Your task to perform on an android device: Clear the shopping cart on bestbuy. Add asus rog to the cart on bestbuy, then select checkout. Image 0: 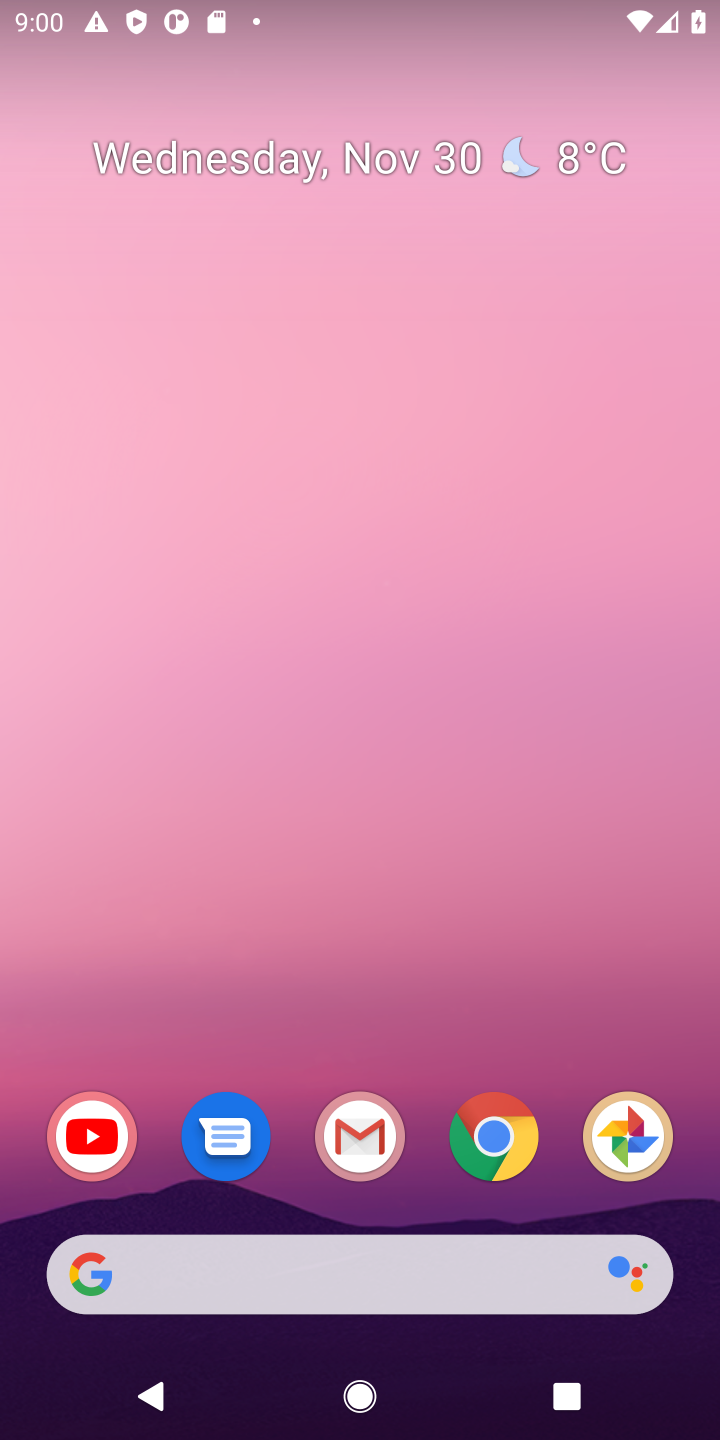
Step 0: click (486, 1131)
Your task to perform on an android device: Clear the shopping cart on bestbuy. Add asus rog to the cart on bestbuy, then select checkout. Image 1: 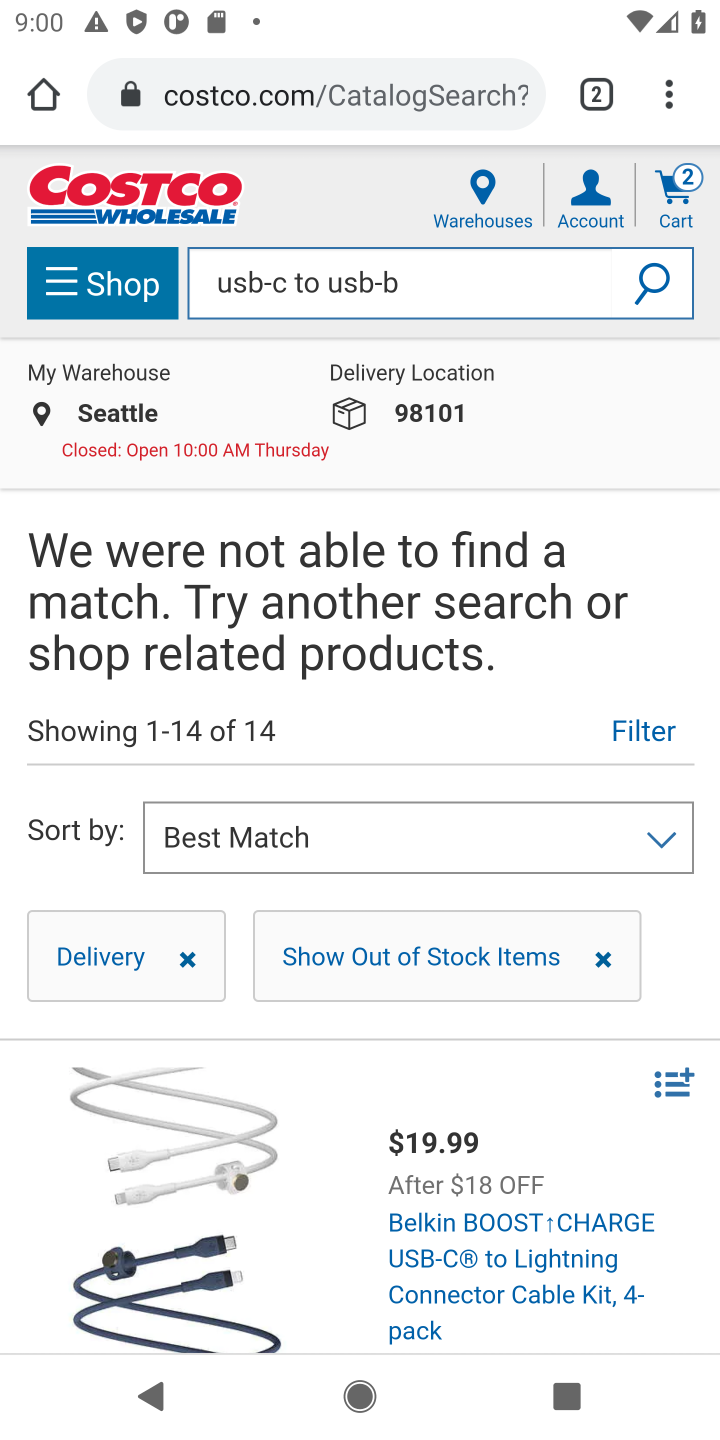
Step 1: click (328, 98)
Your task to perform on an android device: Clear the shopping cart on bestbuy. Add asus rog to the cart on bestbuy, then select checkout. Image 2: 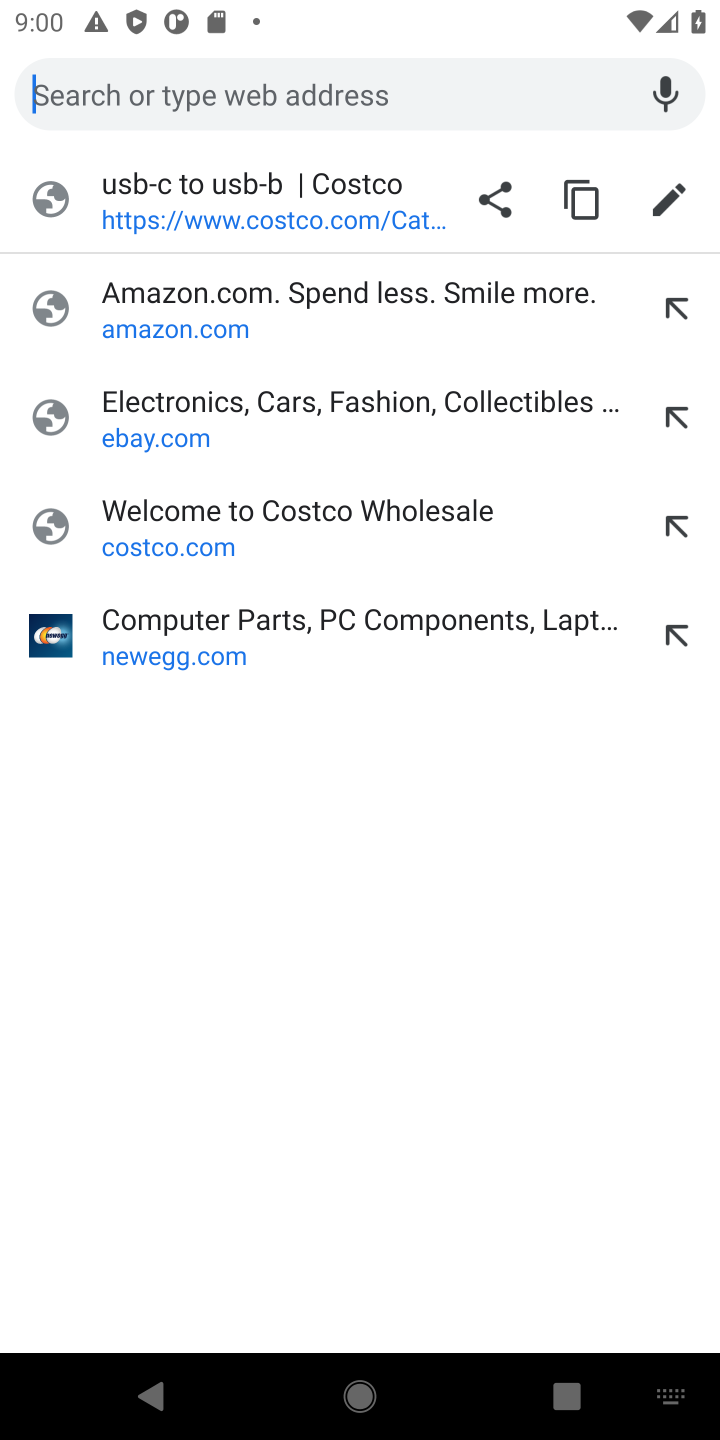
Step 2: type "bestbuy.com"
Your task to perform on an android device: Clear the shopping cart on bestbuy. Add asus rog to the cart on bestbuy, then select checkout. Image 3: 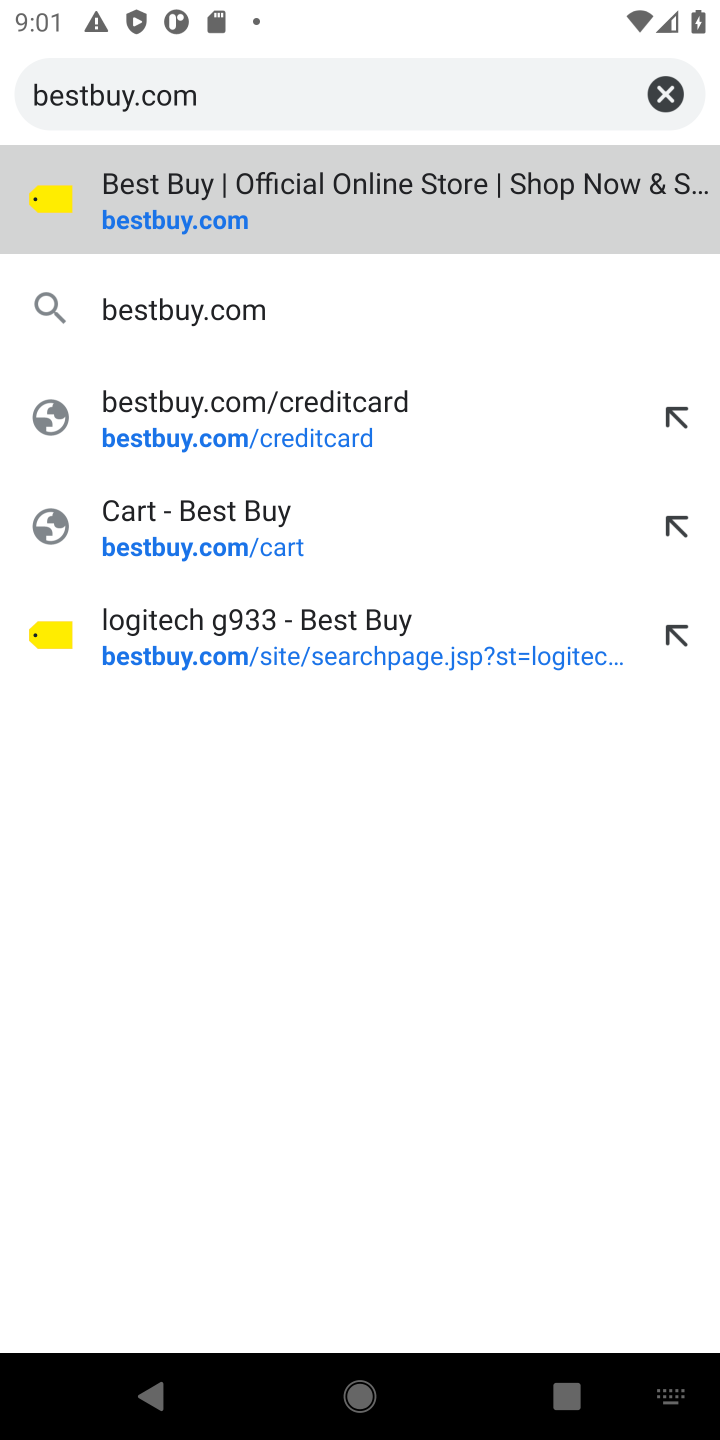
Step 3: click (119, 194)
Your task to perform on an android device: Clear the shopping cart on bestbuy. Add asus rog to the cart on bestbuy, then select checkout. Image 4: 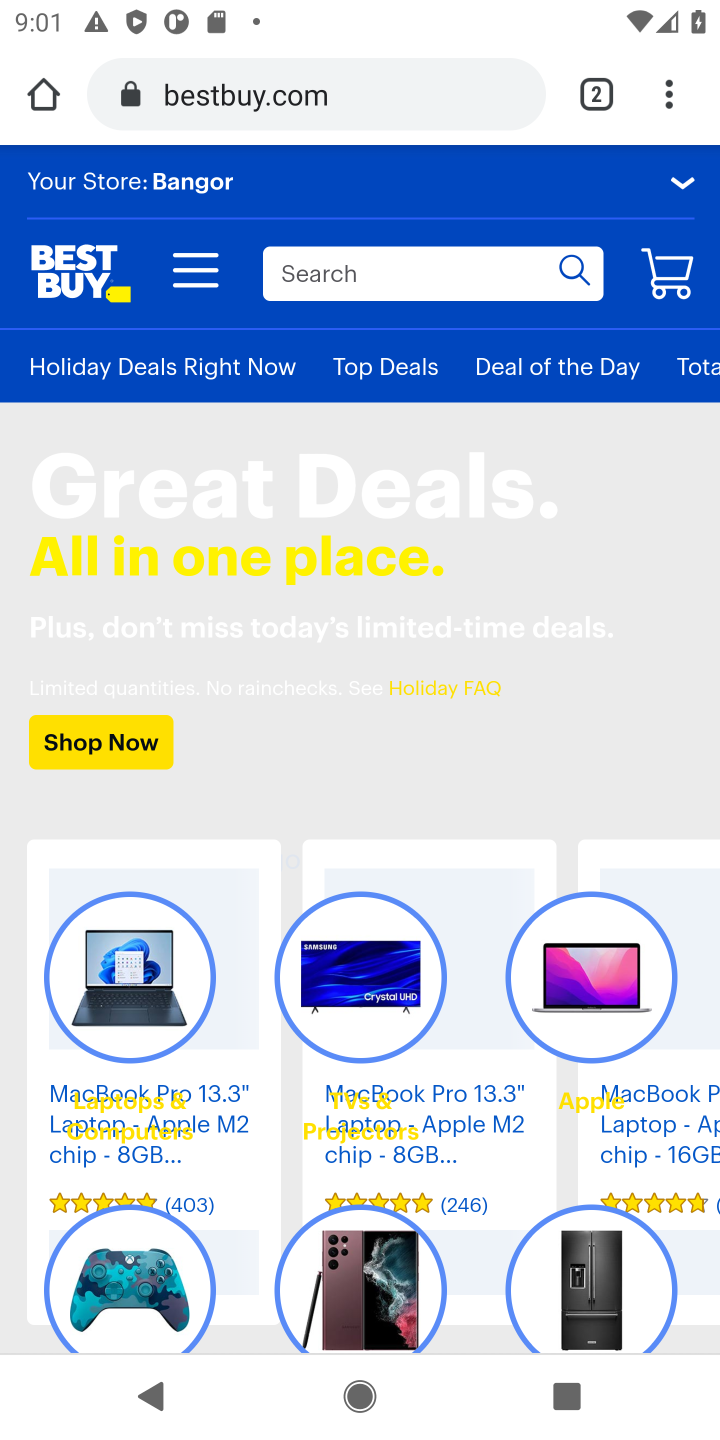
Step 4: click (665, 277)
Your task to perform on an android device: Clear the shopping cart on bestbuy. Add asus rog to the cart on bestbuy, then select checkout. Image 5: 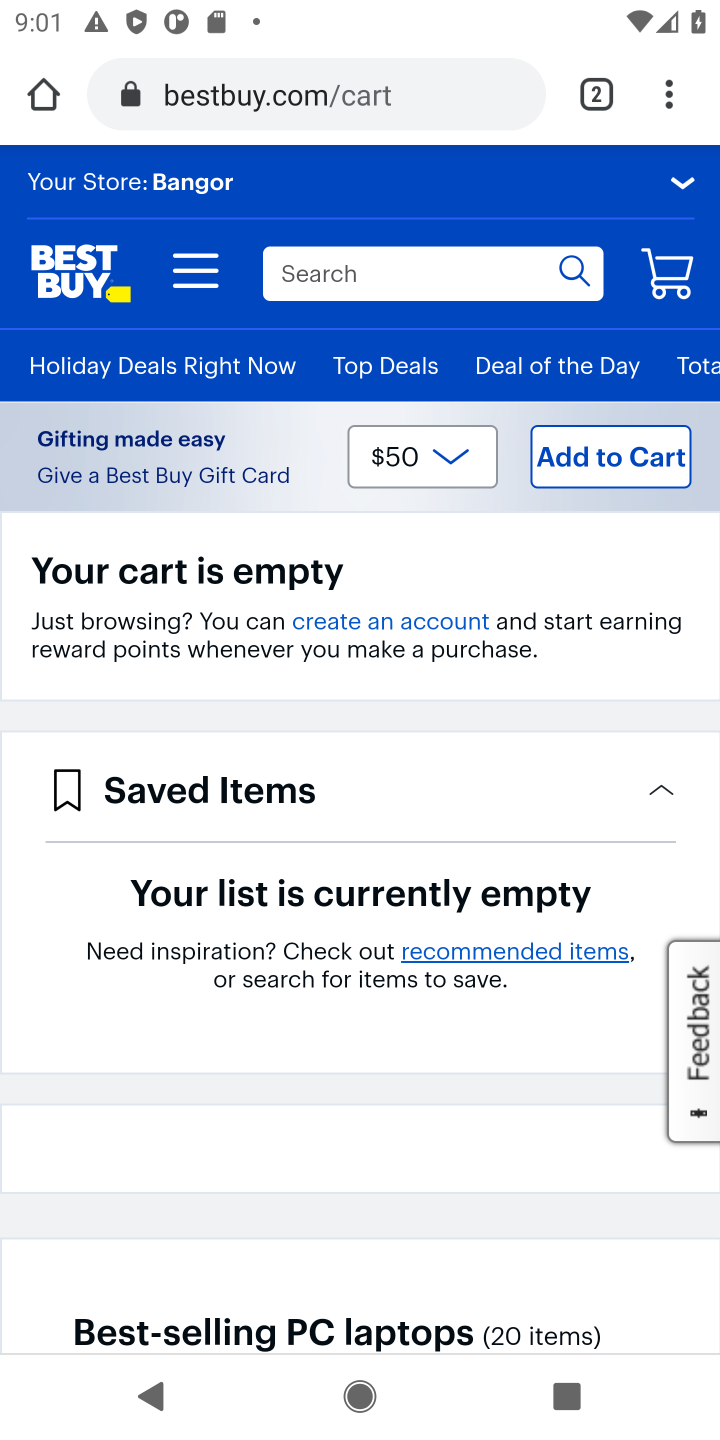
Step 5: click (344, 286)
Your task to perform on an android device: Clear the shopping cart on bestbuy. Add asus rog to the cart on bestbuy, then select checkout. Image 6: 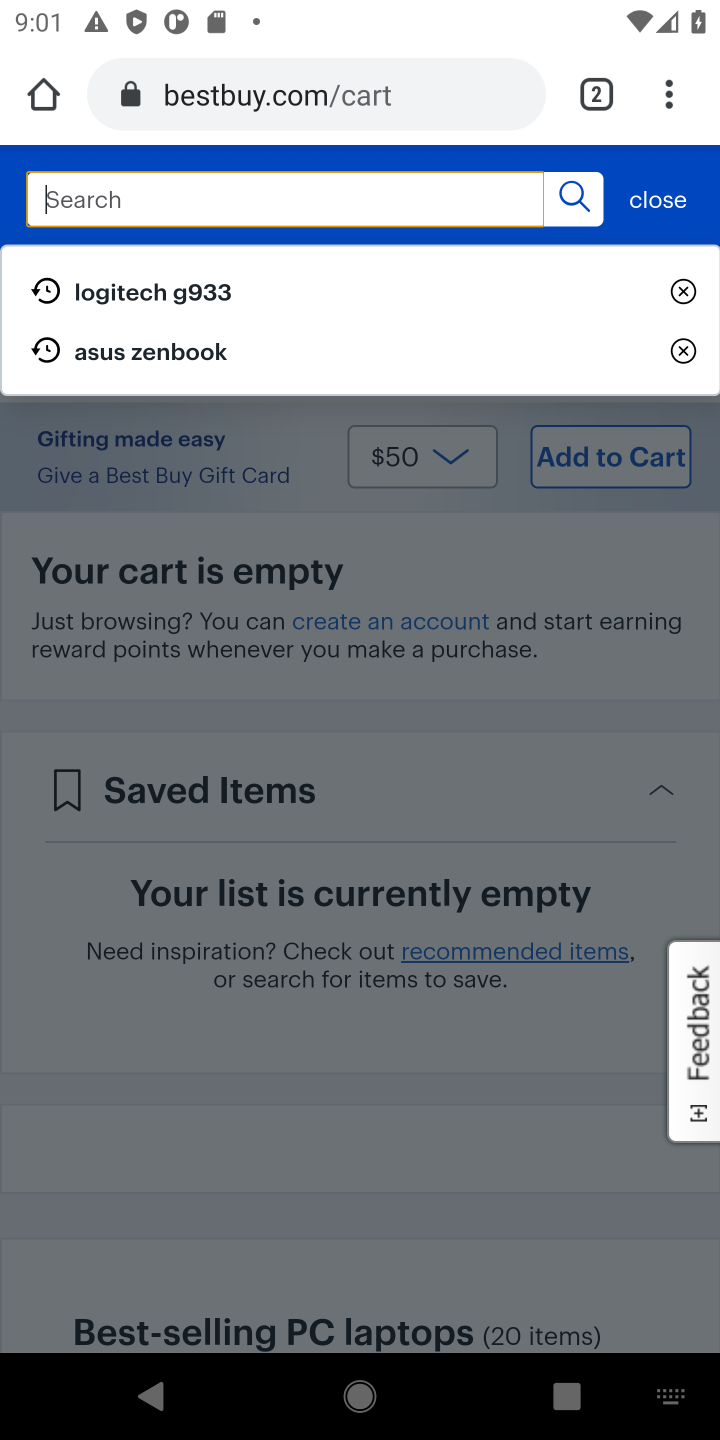
Step 6: type "asus rog "
Your task to perform on an android device: Clear the shopping cart on bestbuy. Add asus rog to the cart on bestbuy, then select checkout. Image 7: 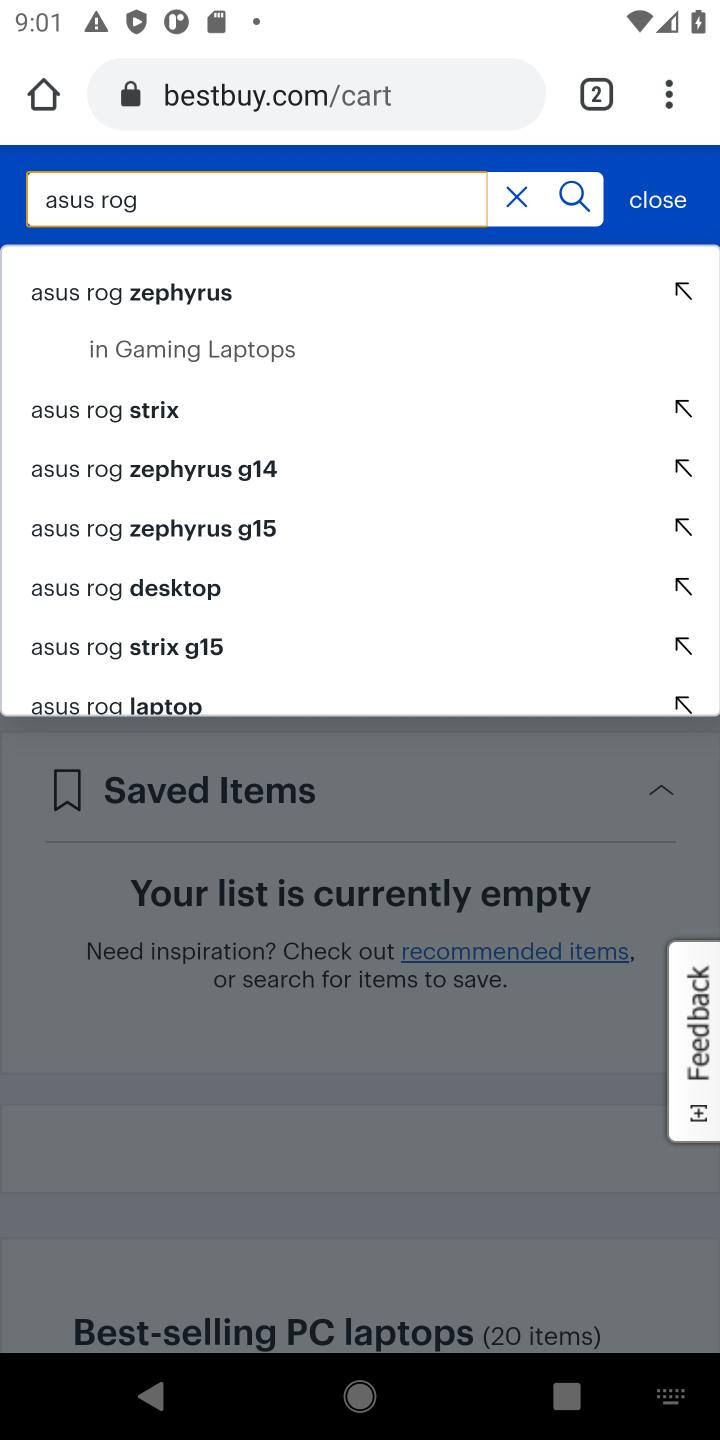
Step 7: click (571, 195)
Your task to perform on an android device: Clear the shopping cart on bestbuy. Add asus rog to the cart on bestbuy, then select checkout. Image 8: 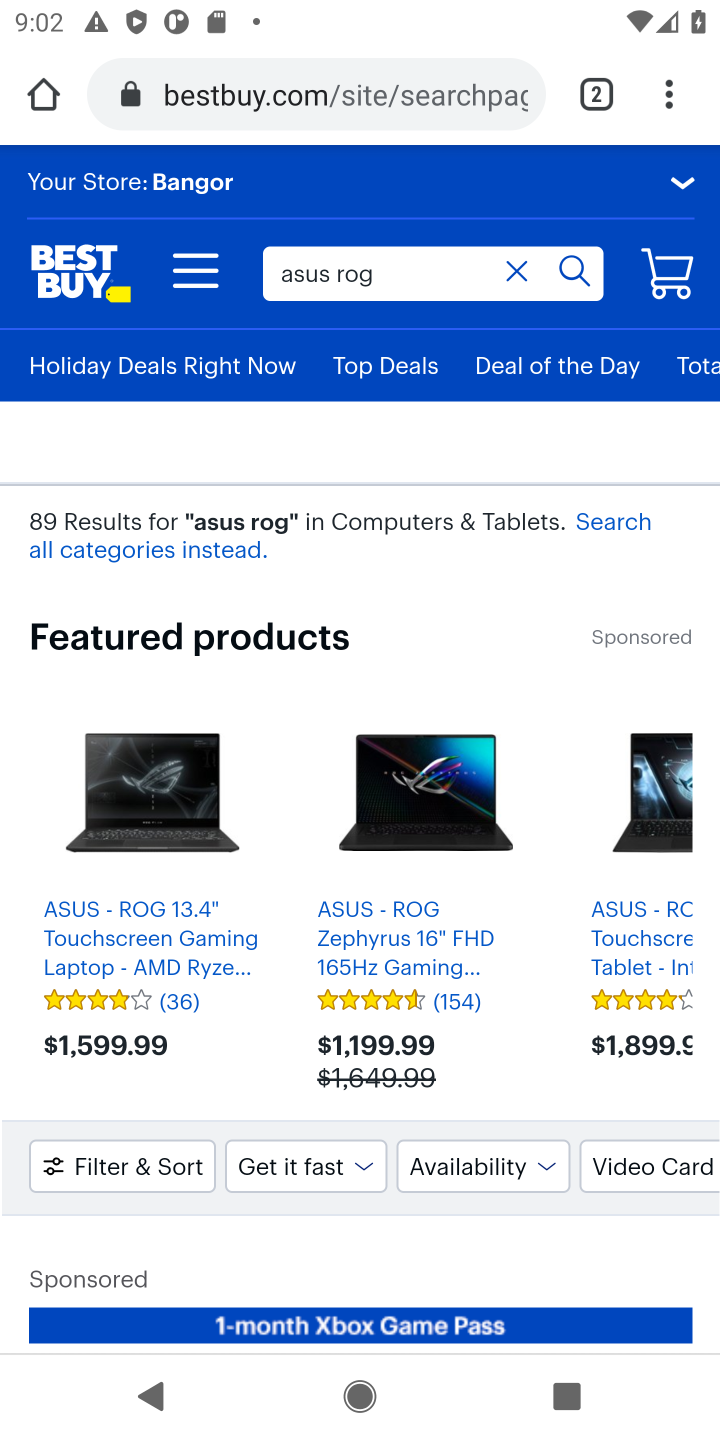
Step 8: drag from (433, 1071) to (466, 559)
Your task to perform on an android device: Clear the shopping cart on bestbuy. Add asus rog to the cart on bestbuy, then select checkout. Image 9: 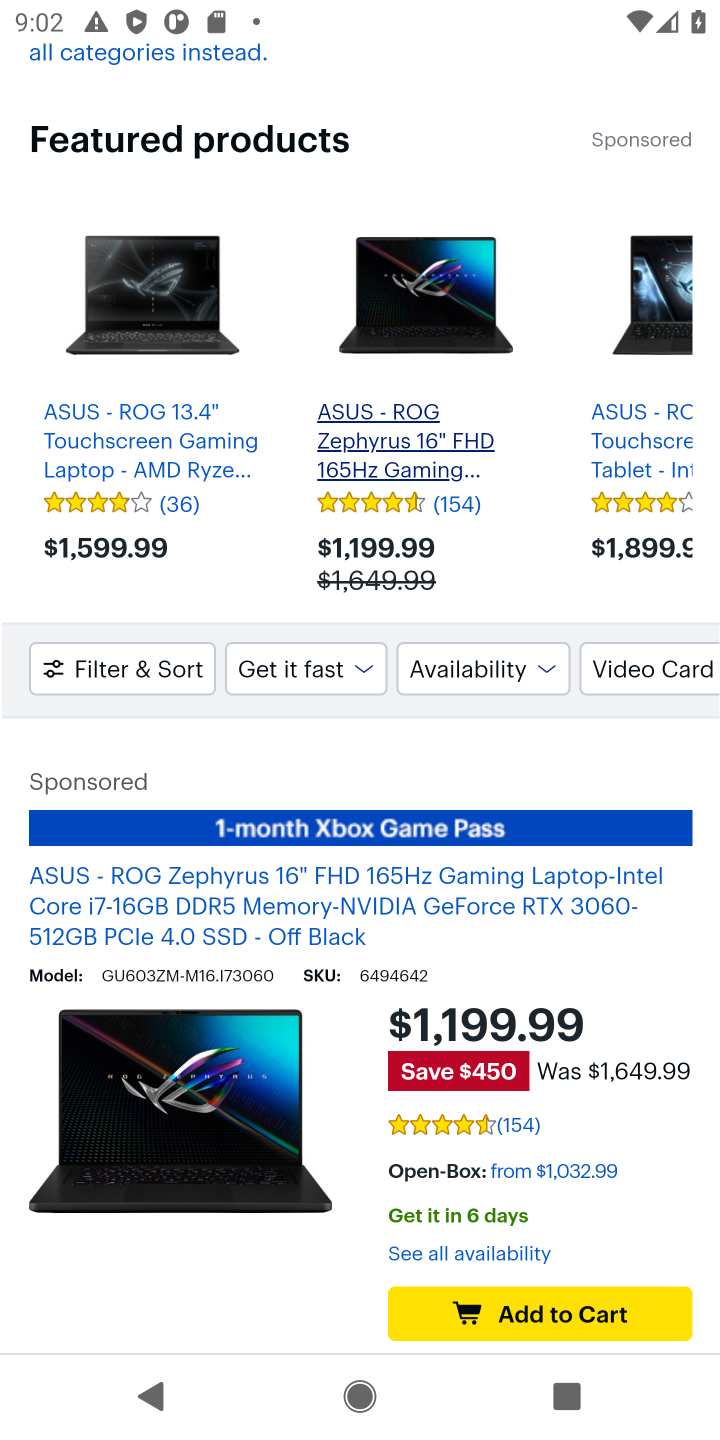
Step 9: drag from (354, 1153) to (352, 772)
Your task to perform on an android device: Clear the shopping cart on bestbuy. Add asus rog to the cart on bestbuy, then select checkout. Image 10: 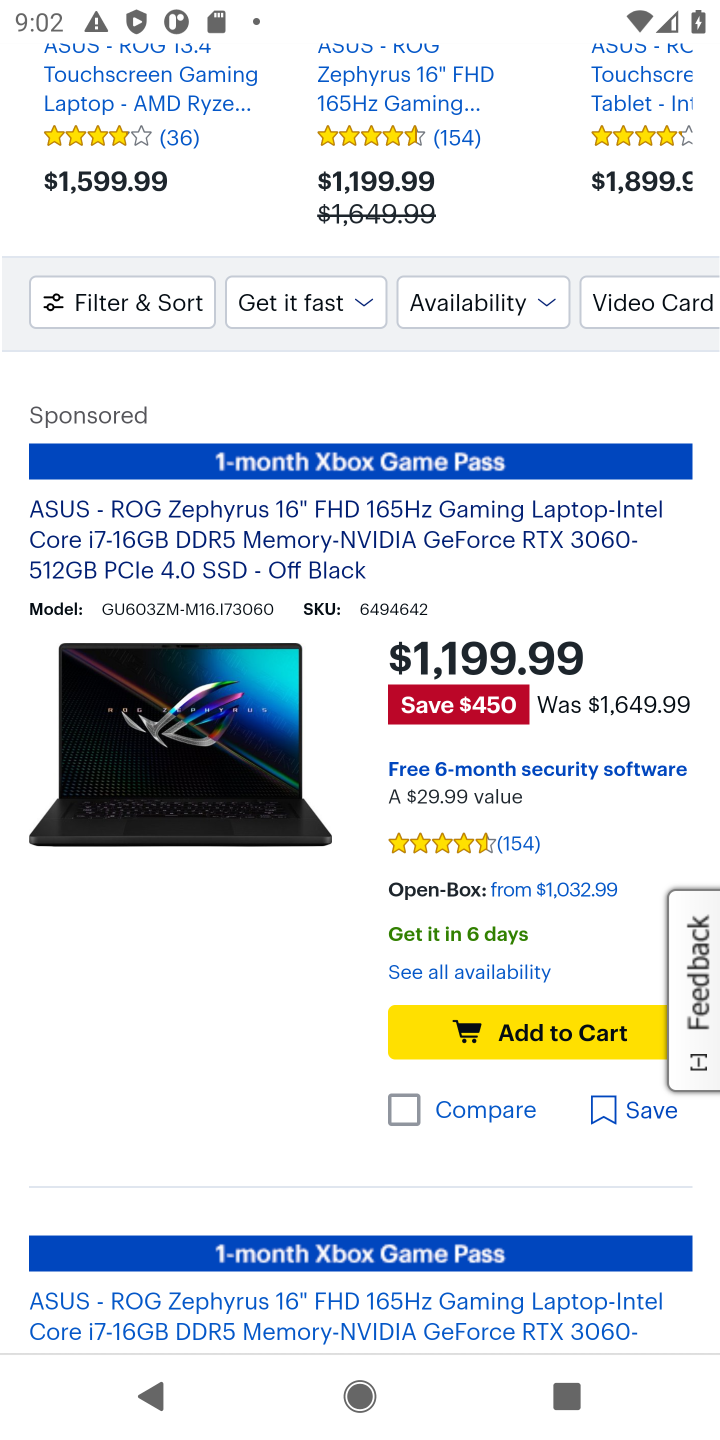
Step 10: click (500, 1016)
Your task to perform on an android device: Clear the shopping cart on bestbuy. Add asus rog to the cart on bestbuy, then select checkout. Image 11: 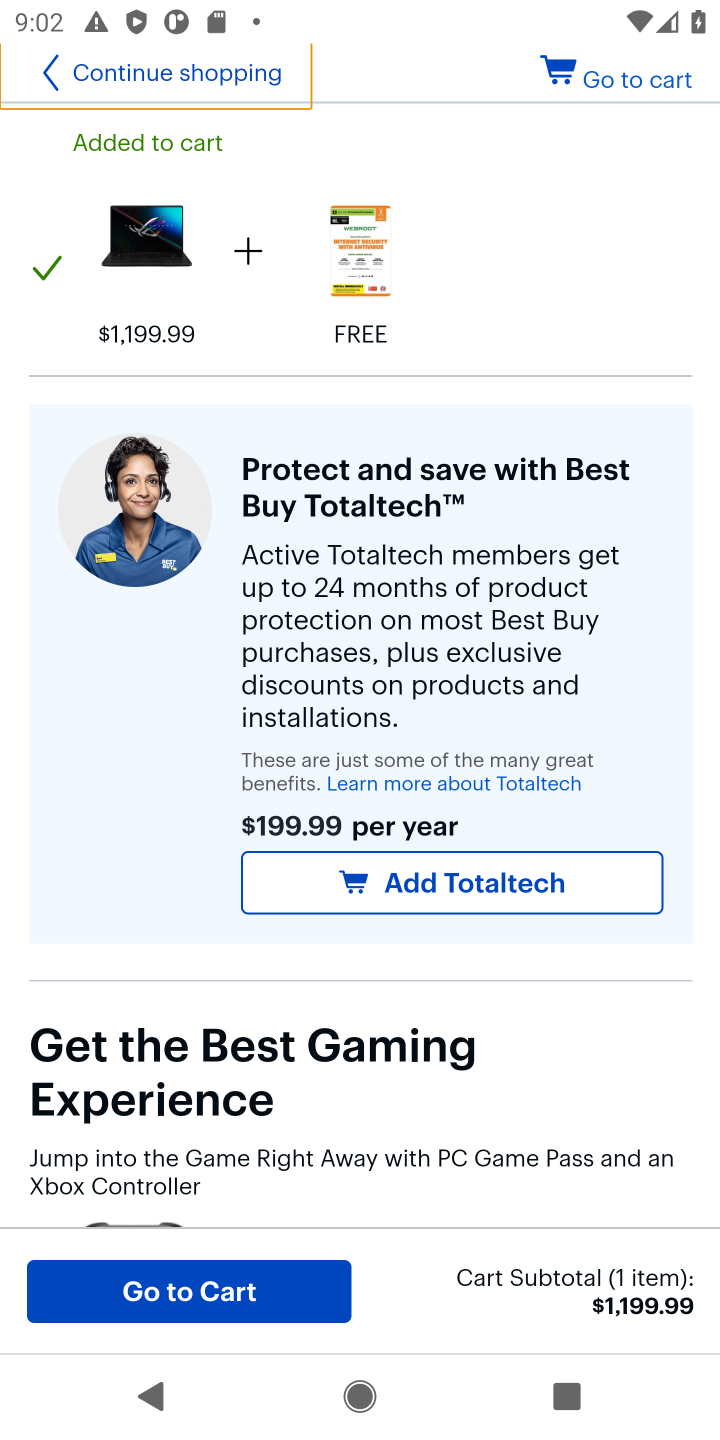
Step 11: click (641, 93)
Your task to perform on an android device: Clear the shopping cart on bestbuy. Add asus rog to the cart on bestbuy, then select checkout. Image 12: 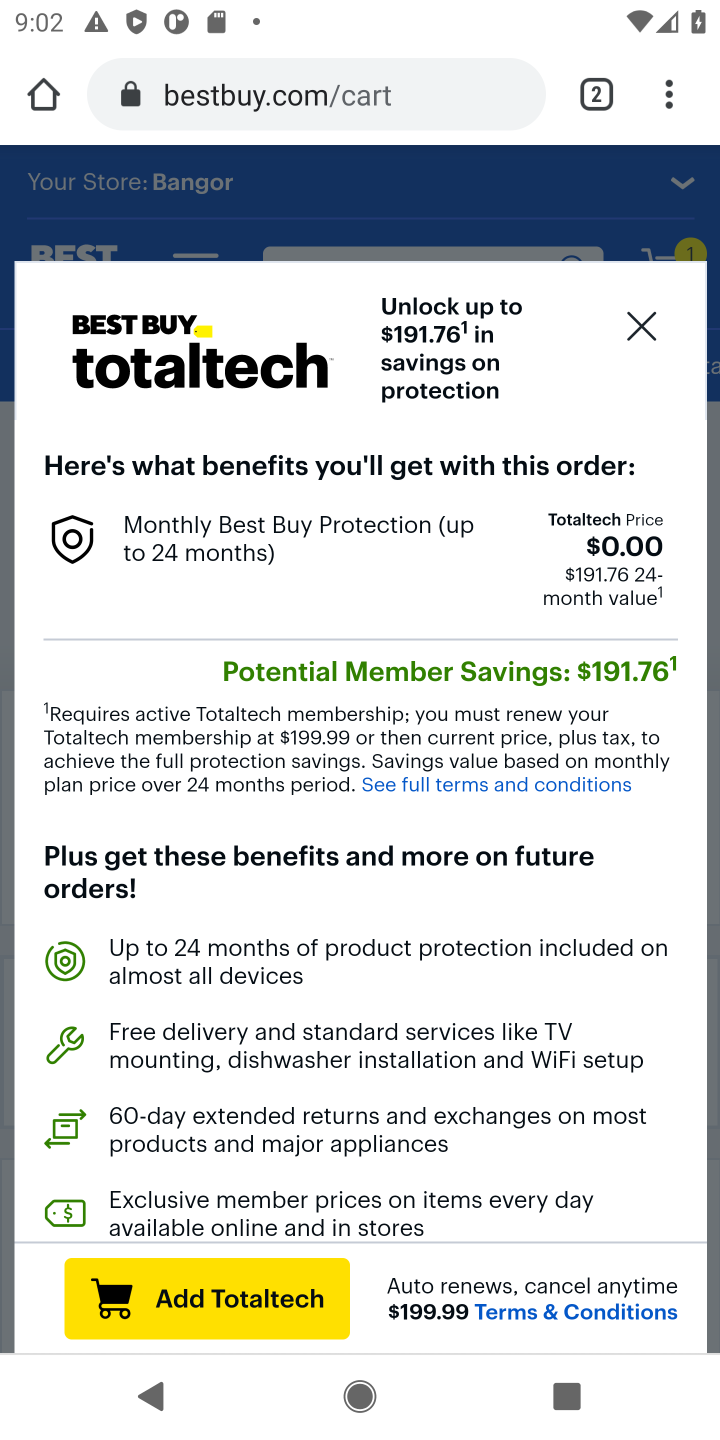
Step 12: click (635, 333)
Your task to perform on an android device: Clear the shopping cart on bestbuy. Add asus rog to the cart on bestbuy, then select checkout. Image 13: 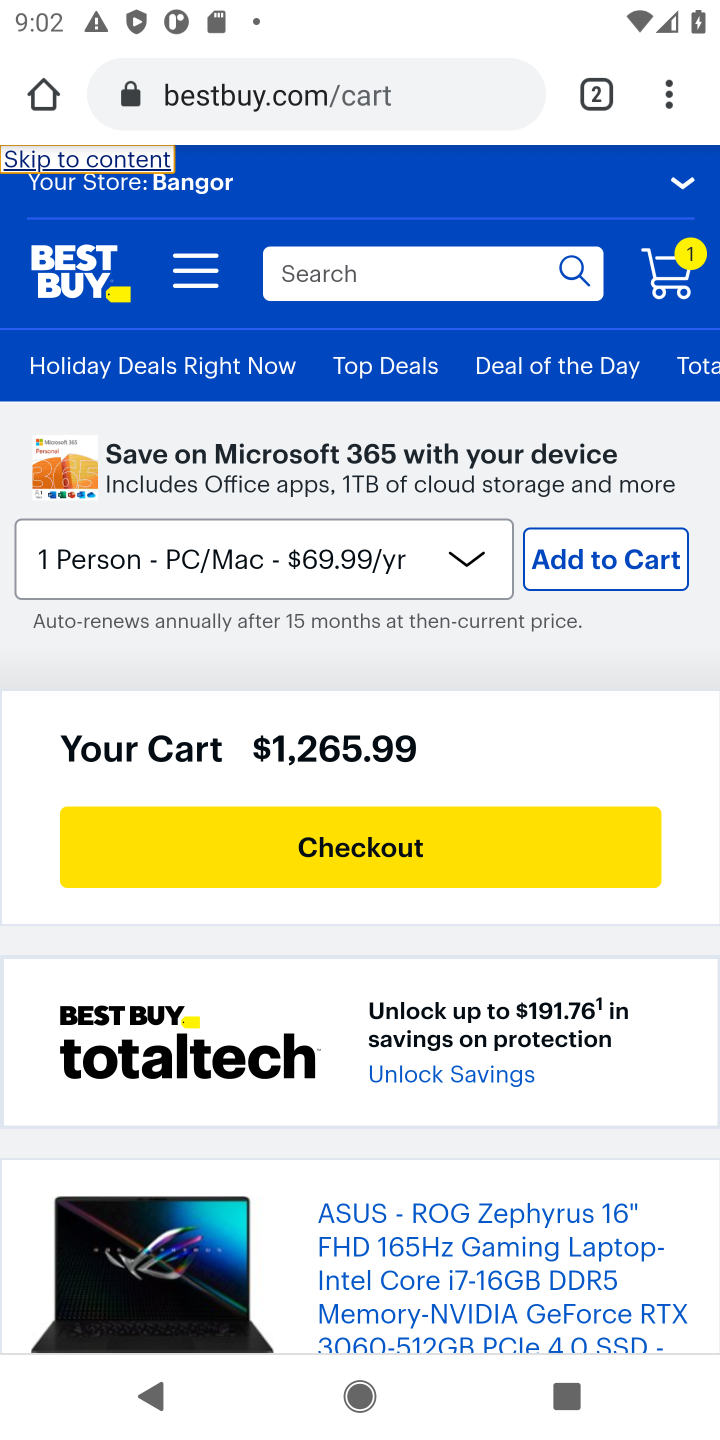
Step 13: click (321, 843)
Your task to perform on an android device: Clear the shopping cart on bestbuy. Add asus rog to the cart on bestbuy, then select checkout. Image 14: 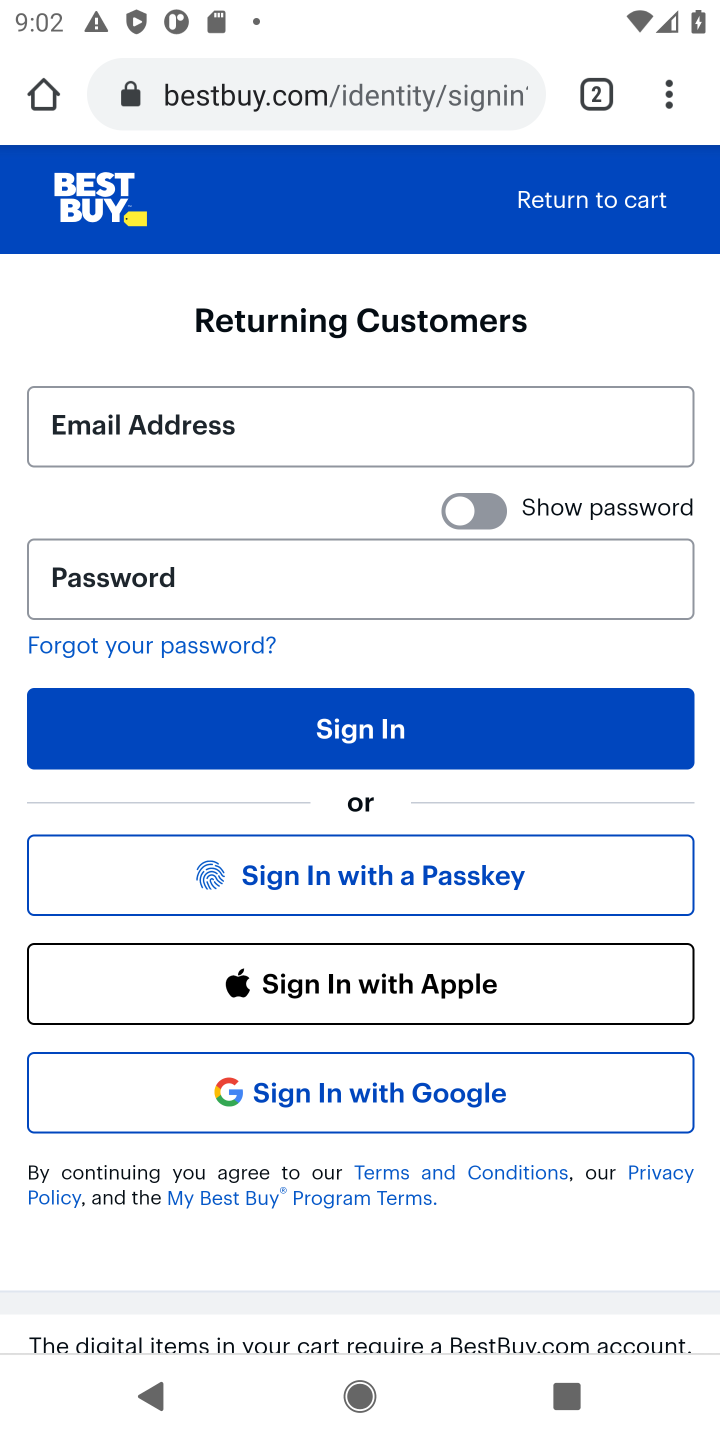
Step 14: task complete